Your task to perform on an android device: add a contact Image 0: 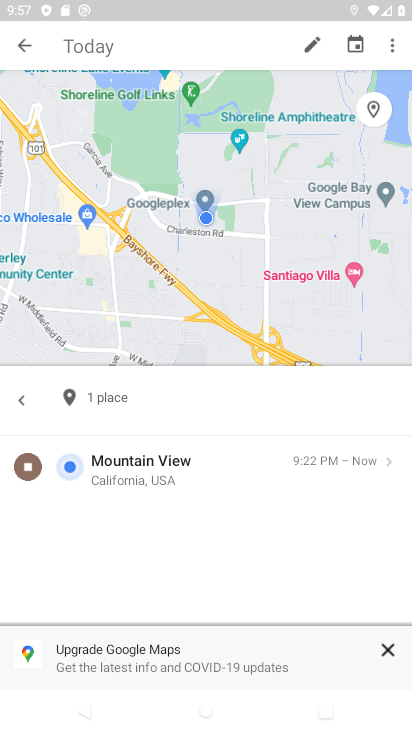
Step 0: press home button
Your task to perform on an android device: add a contact Image 1: 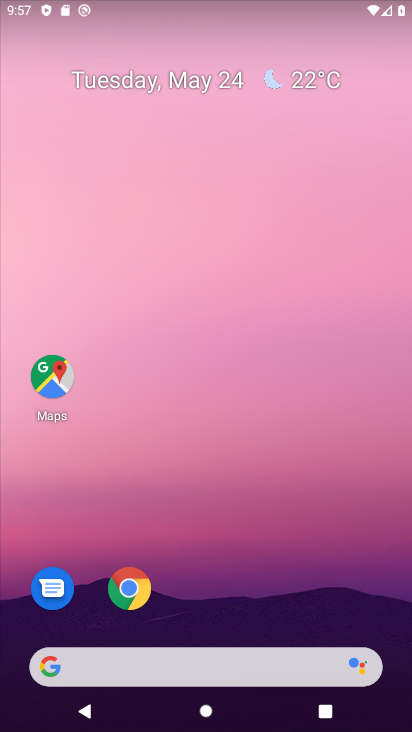
Step 1: drag from (250, 613) to (289, 114)
Your task to perform on an android device: add a contact Image 2: 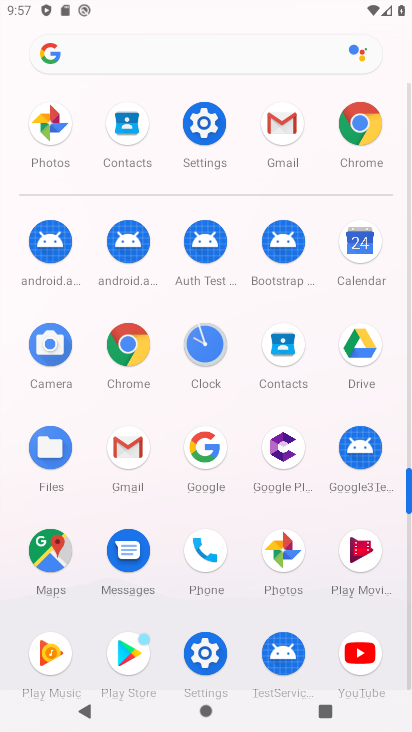
Step 2: click (112, 123)
Your task to perform on an android device: add a contact Image 3: 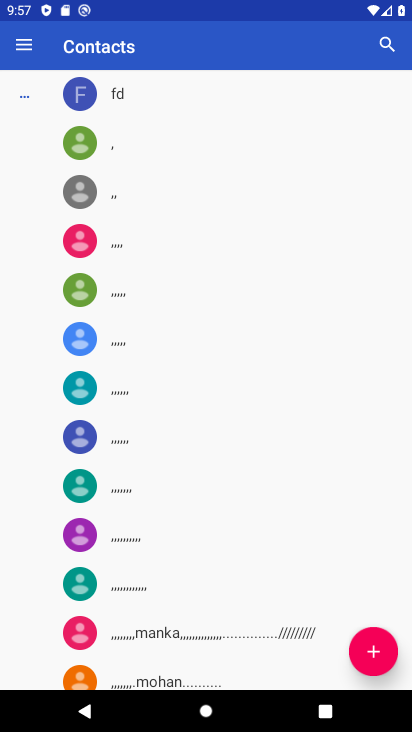
Step 3: click (383, 642)
Your task to perform on an android device: add a contact Image 4: 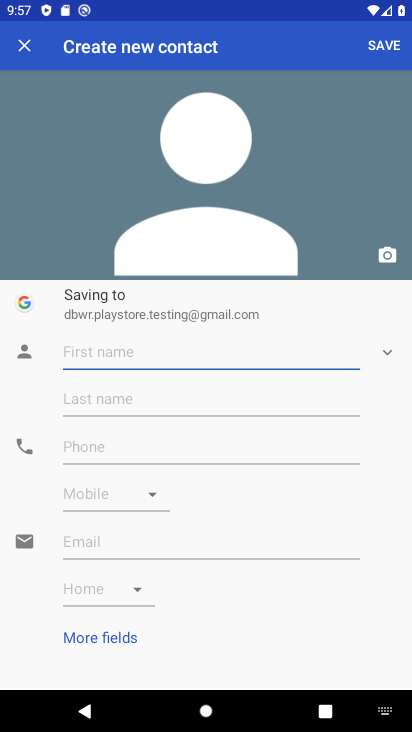
Step 4: type "ijuytfrde"
Your task to perform on an android device: add a contact Image 5: 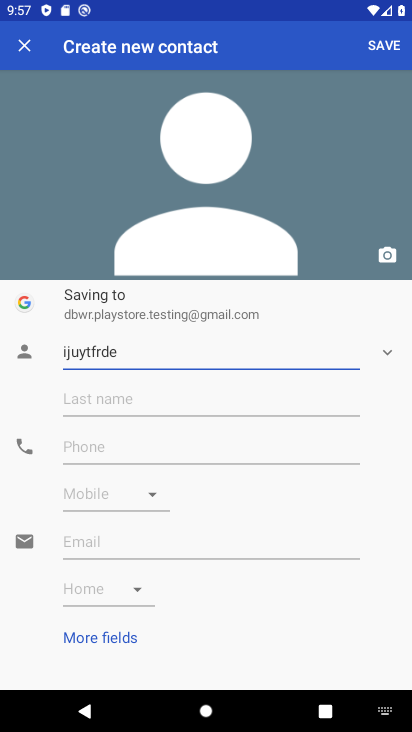
Step 5: click (103, 445)
Your task to perform on an android device: add a contact Image 6: 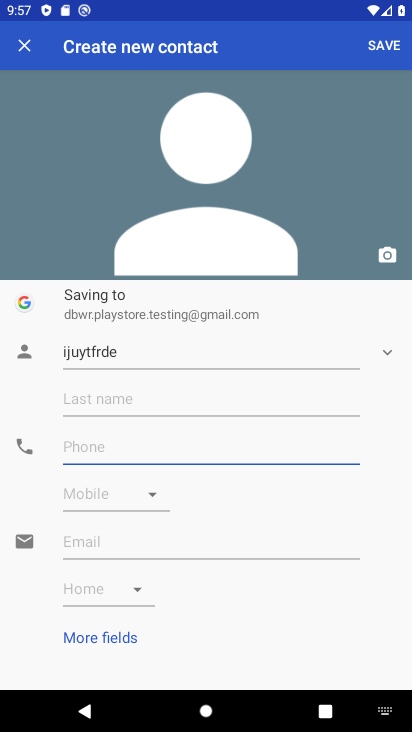
Step 6: type "98765434567"
Your task to perform on an android device: add a contact Image 7: 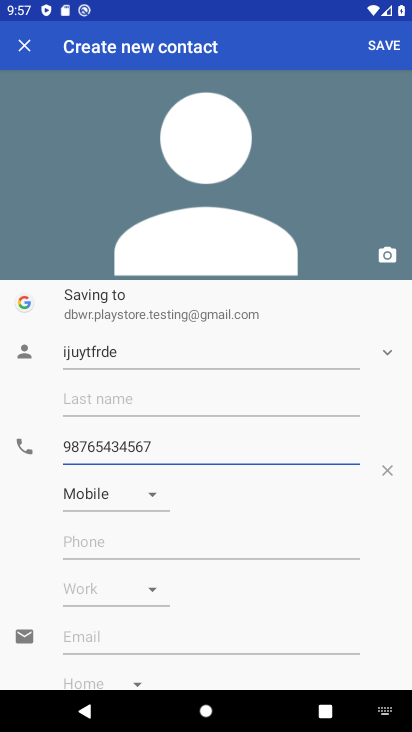
Step 7: click (377, 50)
Your task to perform on an android device: add a contact Image 8: 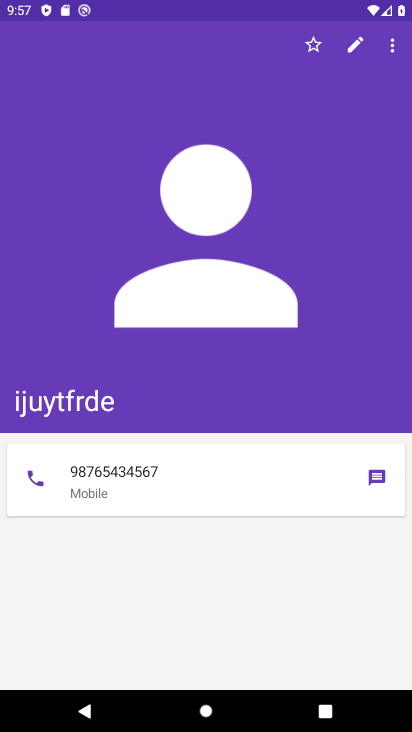
Step 8: task complete